Your task to perform on an android device: turn pop-ups off in chrome Image 0: 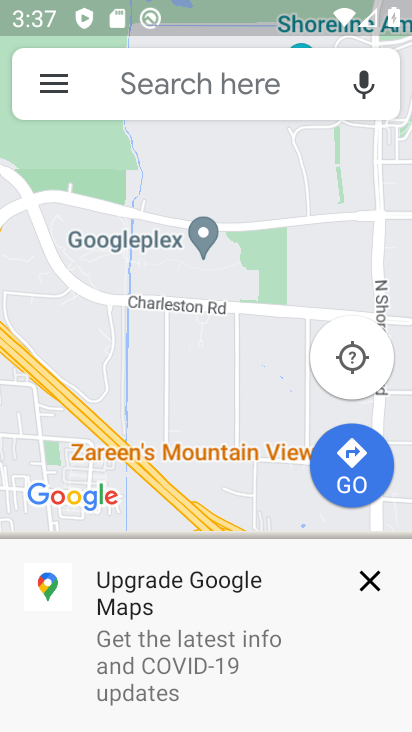
Step 0: press back button
Your task to perform on an android device: turn pop-ups off in chrome Image 1: 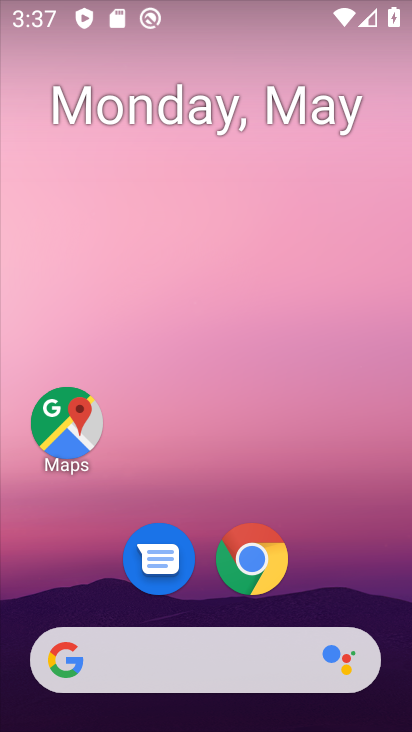
Step 1: drag from (258, 712) to (280, 220)
Your task to perform on an android device: turn pop-ups off in chrome Image 2: 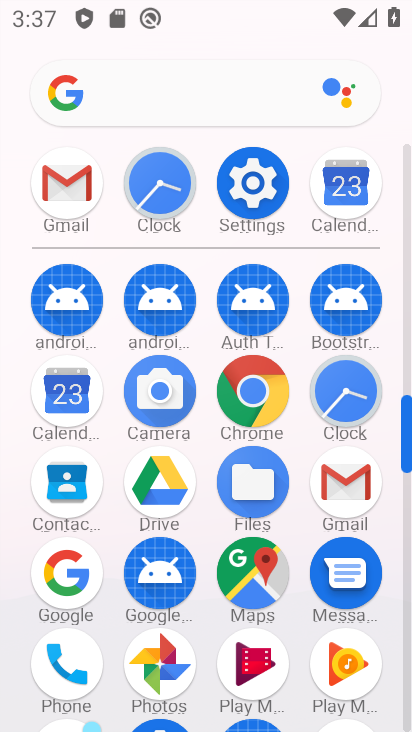
Step 2: click (239, 407)
Your task to perform on an android device: turn pop-ups off in chrome Image 3: 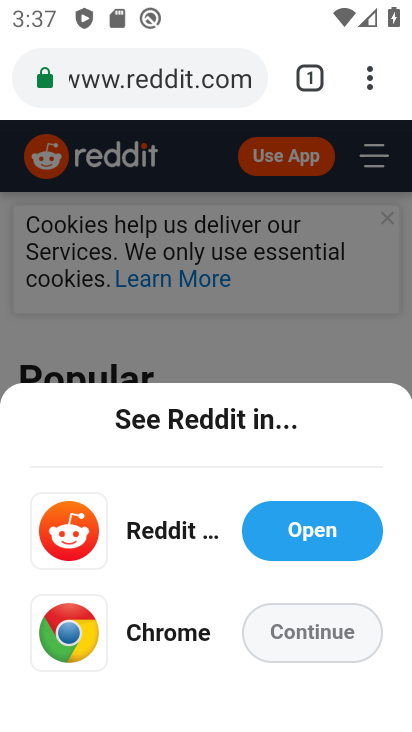
Step 3: click (323, 331)
Your task to perform on an android device: turn pop-ups off in chrome Image 4: 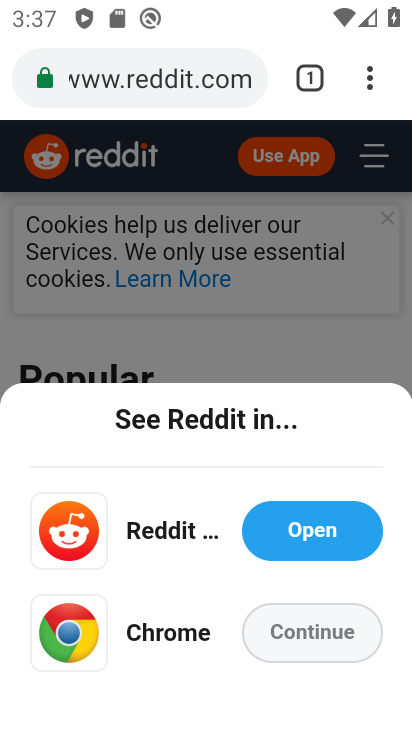
Step 4: press back button
Your task to perform on an android device: turn pop-ups off in chrome Image 5: 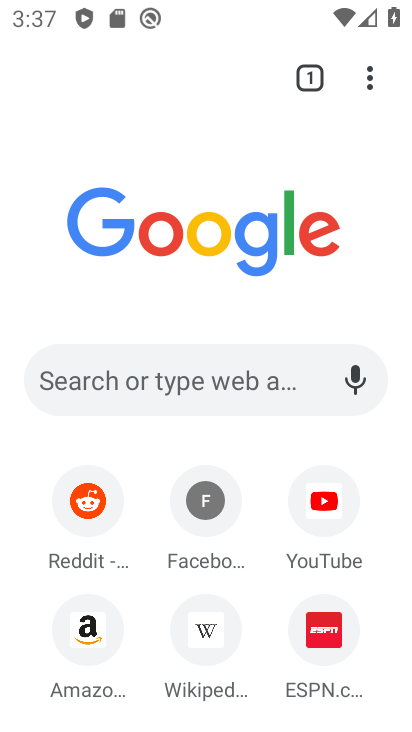
Step 5: click (365, 81)
Your task to perform on an android device: turn pop-ups off in chrome Image 6: 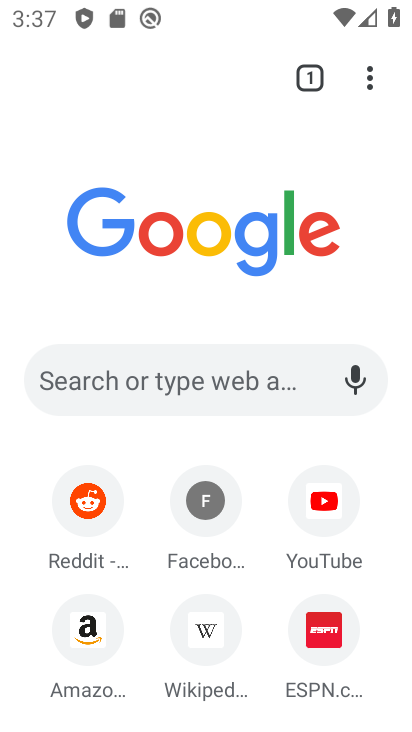
Step 6: click (364, 82)
Your task to perform on an android device: turn pop-ups off in chrome Image 7: 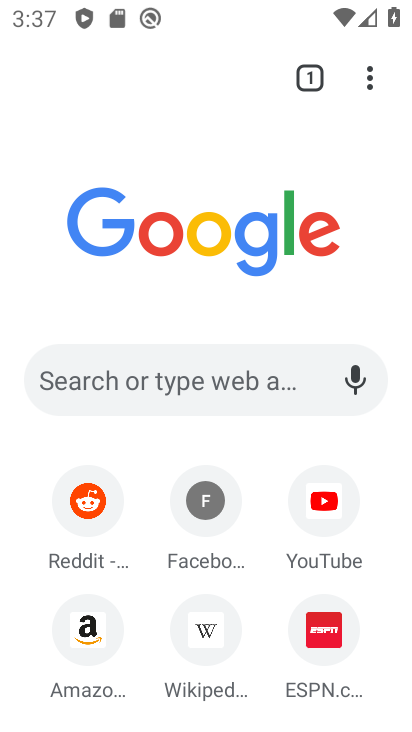
Step 7: drag from (369, 76) to (93, 620)
Your task to perform on an android device: turn pop-ups off in chrome Image 8: 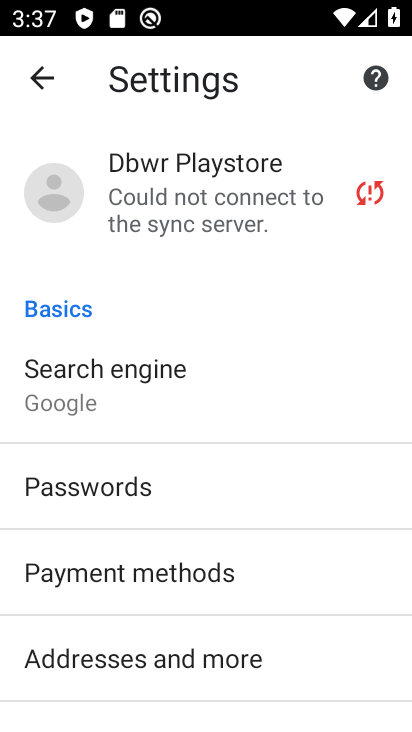
Step 8: drag from (158, 455) to (188, 269)
Your task to perform on an android device: turn pop-ups off in chrome Image 9: 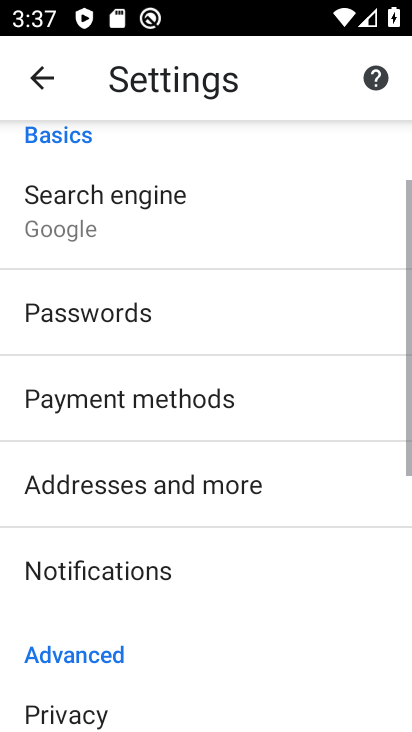
Step 9: drag from (173, 527) to (184, 122)
Your task to perform on an android device: turn pop-ups off in chrome Image 10: 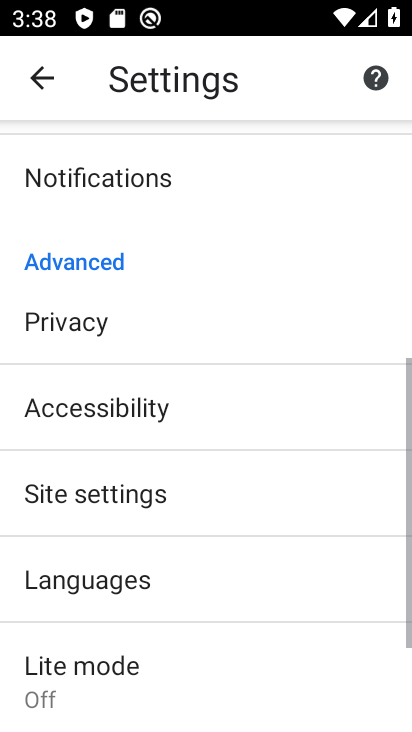
Step 10: drag from (195, 476) to (228, 214)
Your task to perform on an android device: turn pop-ups off in chrome Image 11: 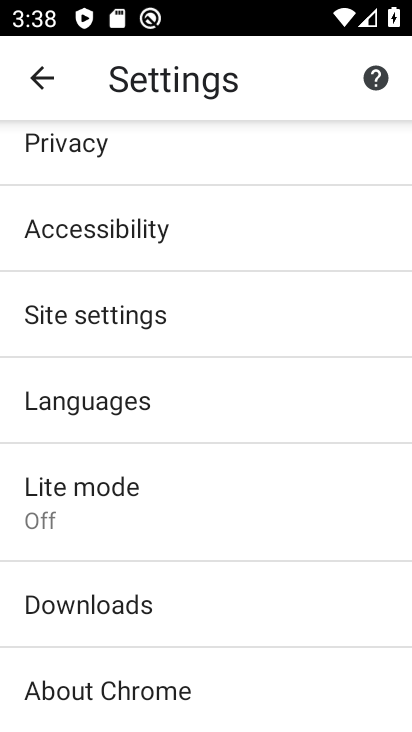
Step 11: click (71, 324)
Your task to perform on an android device: turn pop-ups off in chrome Image 12: 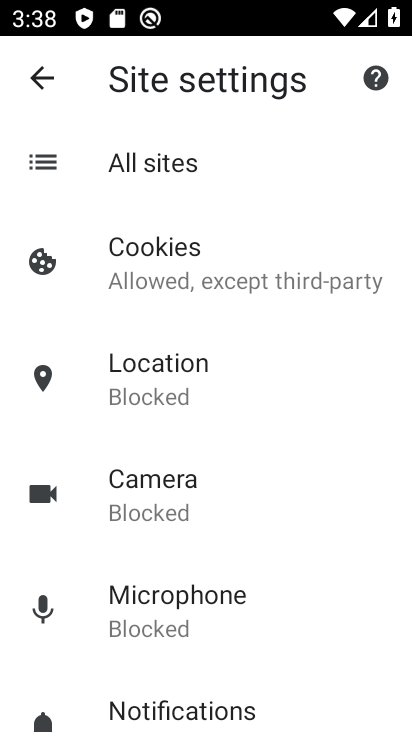
Step 12: drag from (249, 610) to (263, 259)
Your task to perform on an android device: turn pop-ups off in chrome Image 13: 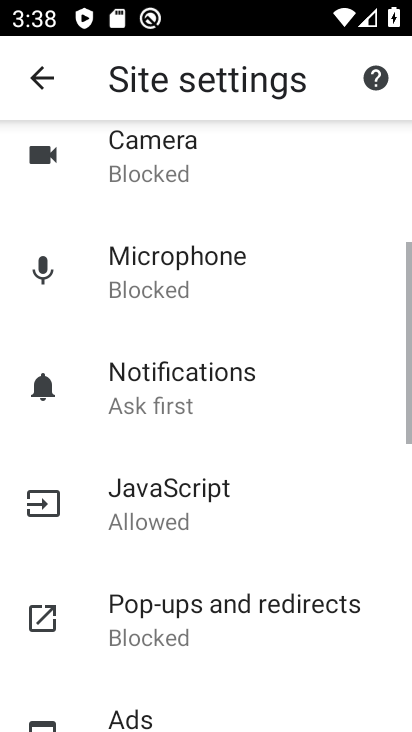
Step 13: drag from (205, 551) to (199, 266)
Your task to perform on an android device: turn pop-ups off in chrome Image 14: 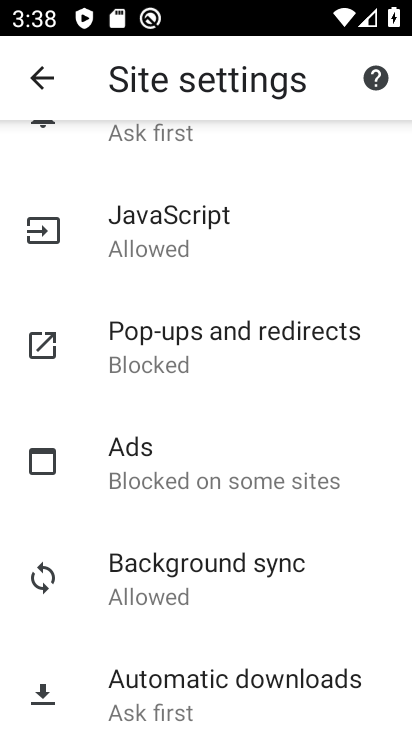
Step 14: drag from (199, 580) to (152, 278)
Your task to perform on an android device: turn pop-ups off in chrome Image 15: 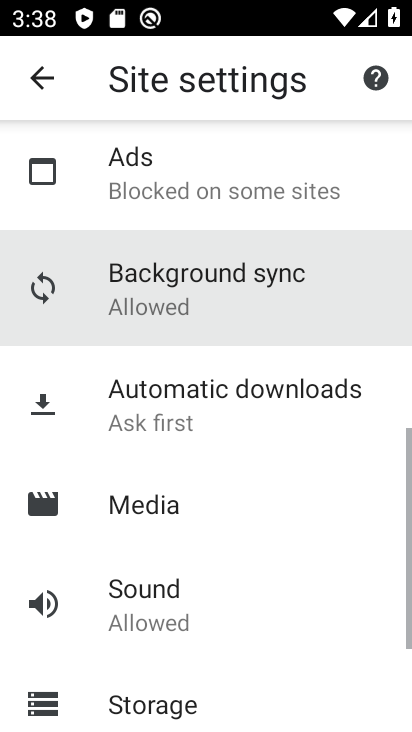
Step 15: drag from (176, 502) to (265, 241)
Your task to perform on an android device: turn pop-ups off in chrome Image 16: 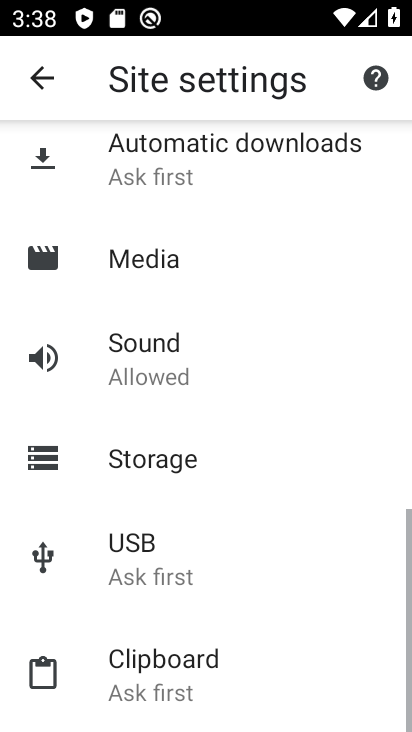
Step 16: drag from (175, 242) to (155, 601)
Your task to perform on an android device: turn pop-ups off in chrome Image 17: 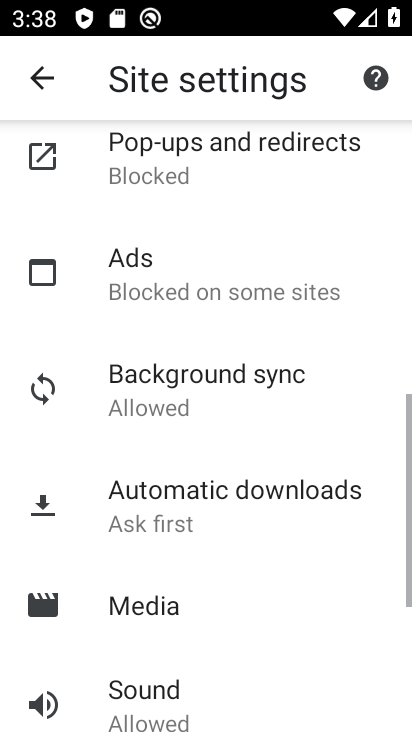
Step 17: drag from (165, 195) to (167, 634)
Your task to perform on an android device: turn pop-ups off in chrome Image 18: 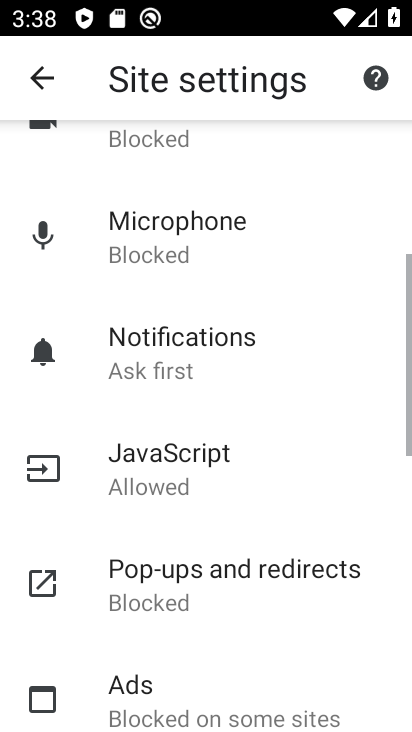
Step 18: drag from (211, 306) to (180, 670)
Your task to perform on an android device: turn pop-ups off in chrome Image 19: 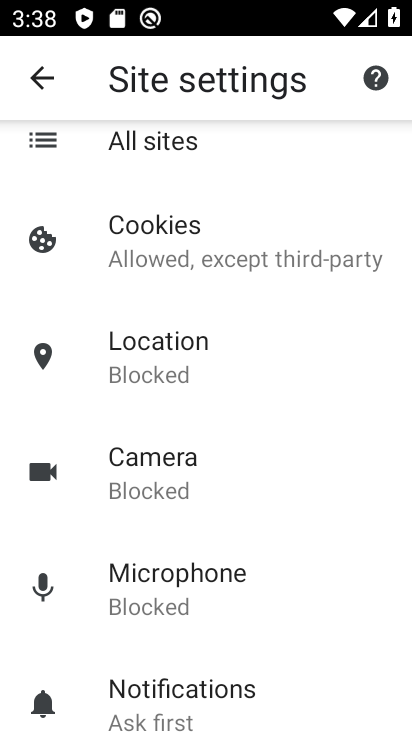
Step 19: drag from (149, 588) to (197, 204)
Your task to perform on an android device: turn pop-ups off in chrome Image 20: 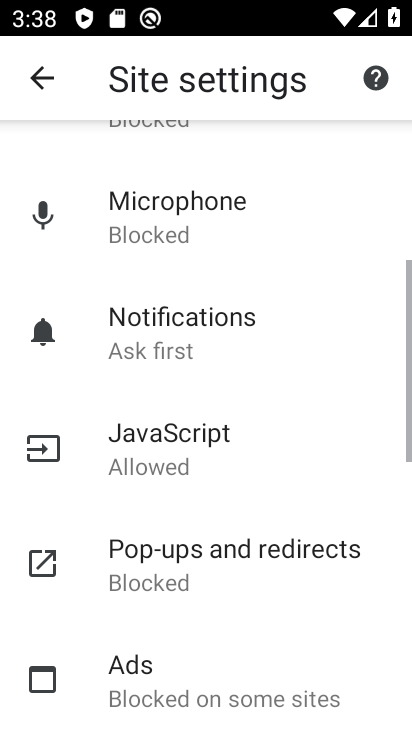
Step 20: drag from (189, 347) to (203, 183)
Your task to perform on an android device: turn pop-ups off in chrome Image 21: 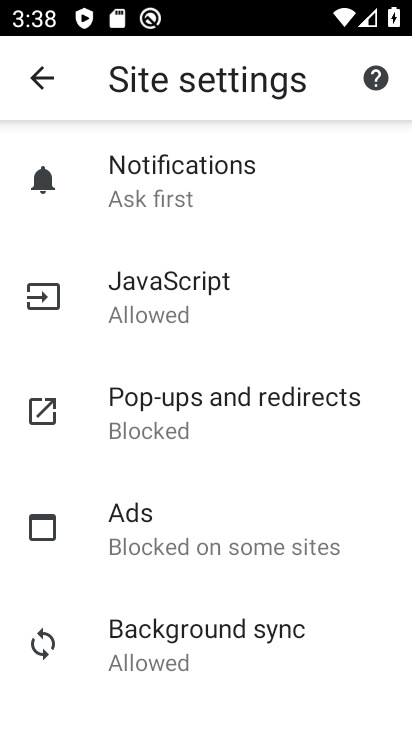
Step 21: click (170, 393)
Your task to perform on an android device: turn pop-ups off in chrome Image 22: 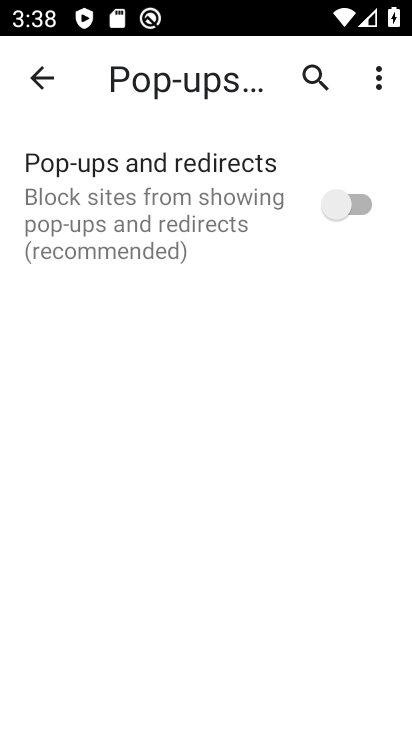
Step 22: task complete